Your task to perform on an android device: toggle location history Image 0: 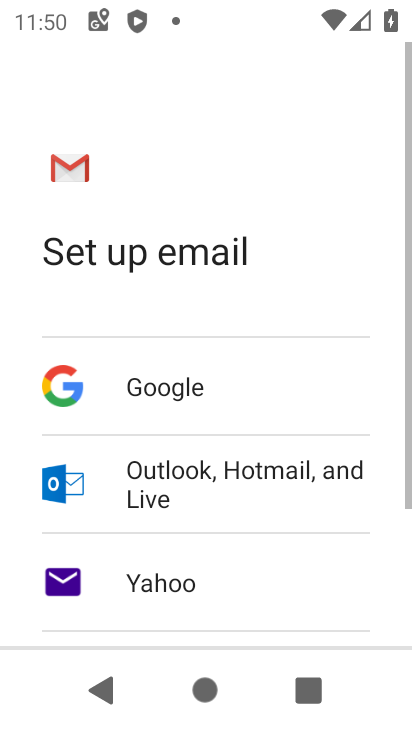
Step 0: press home button
Your task to perform on an android device: toggle location history Image 1: 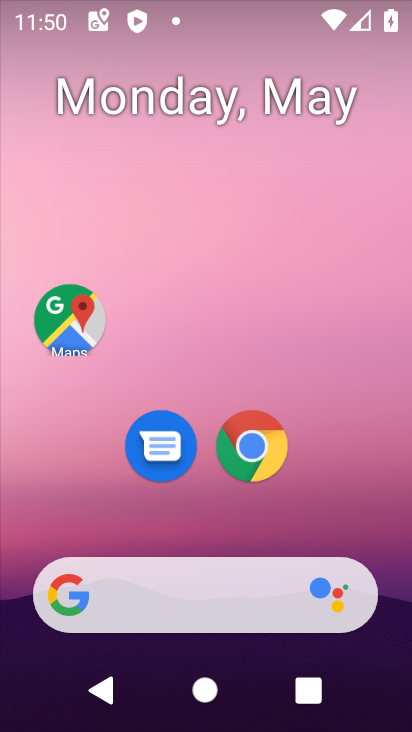
Step 1: drag from (291, 507) to (304, 122)
Your task to perform on an android device: toggle location history Image 2: 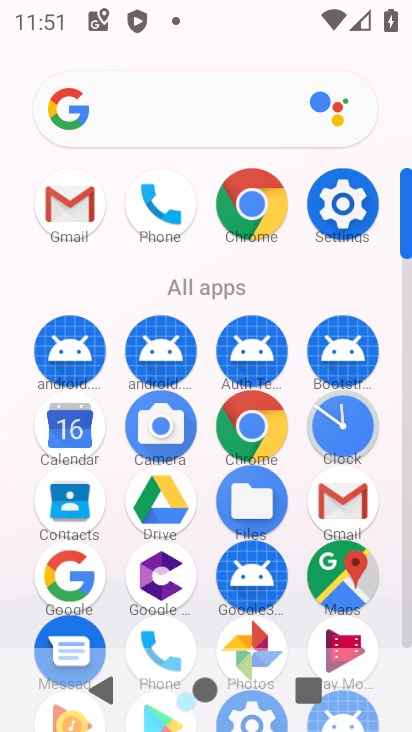
Step 2: click (335, 191)
Your task to perform on an android device: toggle location history Image 3: 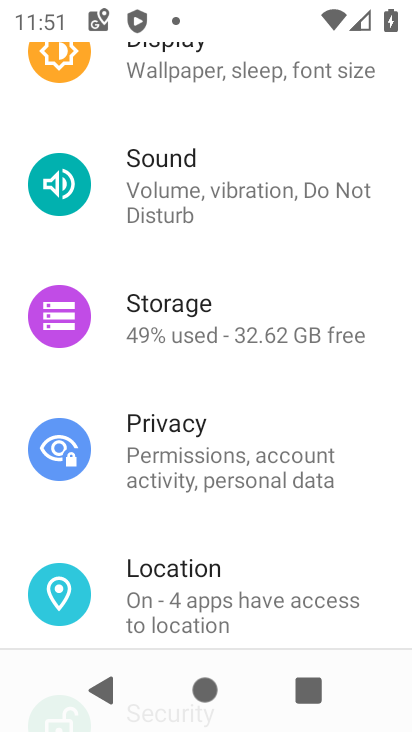
Step 3: click (182, 564)
Your task to perform on an android device: toggle location history Image 4: 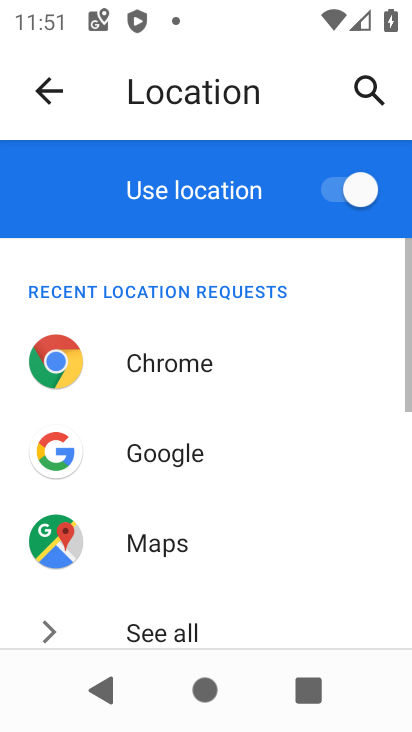
Step 4: drag from (195, 564) to (270, 183)
Your task to perform on an android device: toggle location history Image 5: 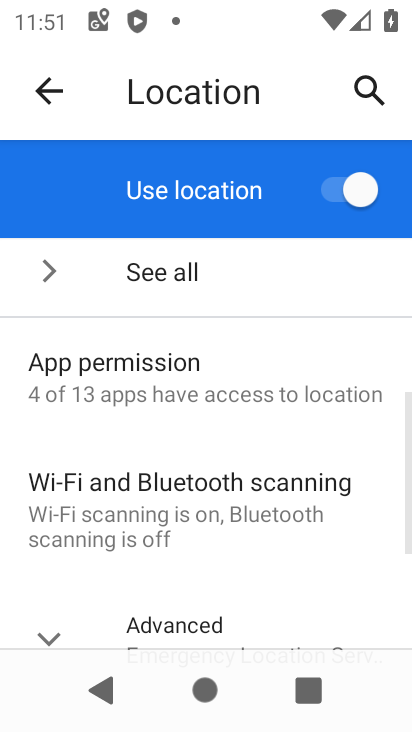
Step 5: drag from (195, 497) to (245, 302)
Your task to perform on an android device: toggle location history Image 6: 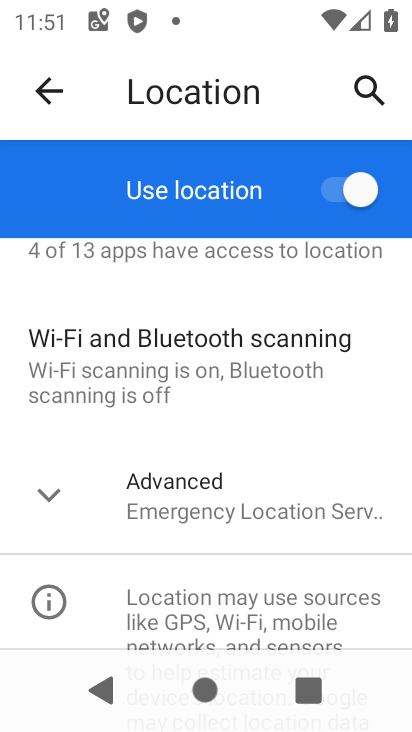
Step 6: click (197, 516)
Your task to perform on an android device: toggle location history Image 7: 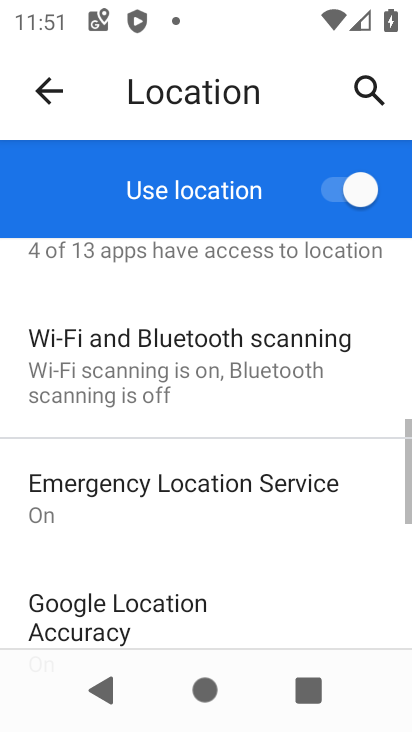
Step 7: drag from (192, 611) to (224, 383)
Your task to perform on an android device: toggle location history Image 8: 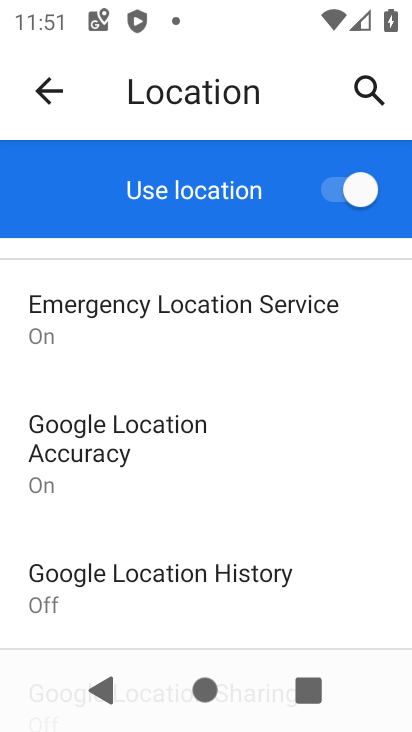
Step 8: click (154, 565)
Your task to perform on an android device: toggle location history Image 9: 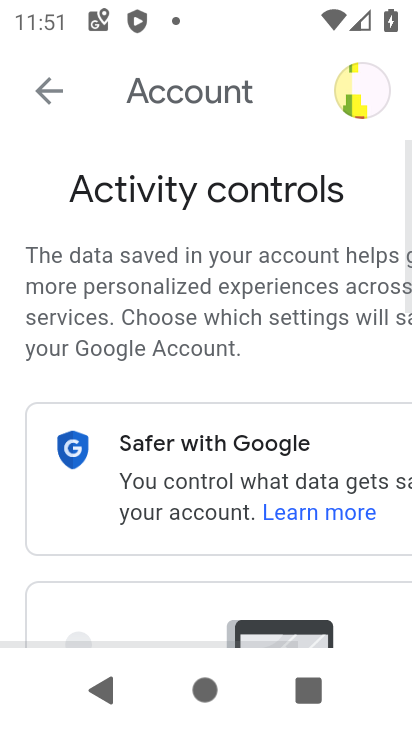
Step 9: drag from (200, 547) to (292, 170)
Your task to perform on an android device: toggle location history Image 10: 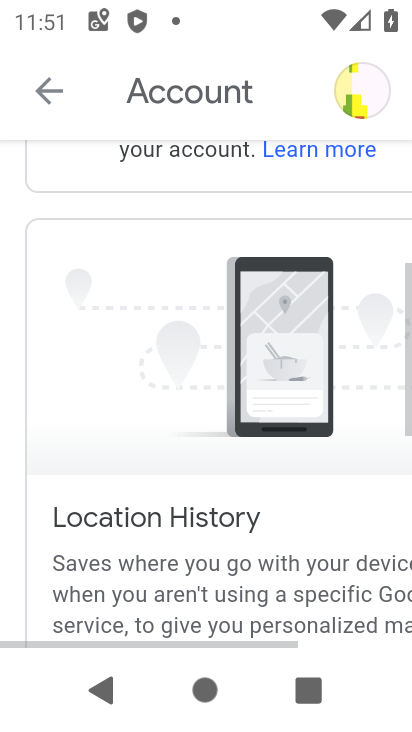
Step 10: drag from (246, 484) to (302, 142)
Your task to perform on an android device: toggle location history Image 11: 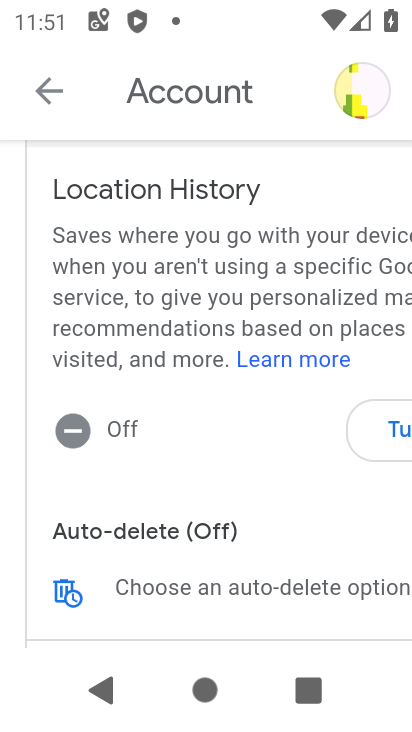
Step 11: click (379, 410)
Your task to perform on an android device: toggle location history Image 12: 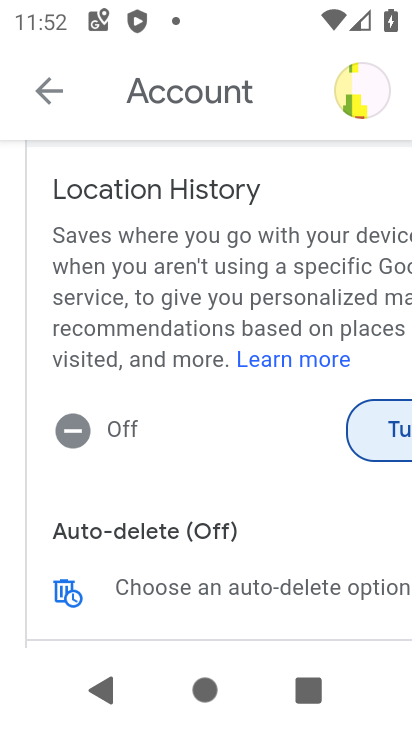
Step 12: task complete